Your task to perform on an android device: install app "TextNow: Call + Text Unlimited" Image 0: 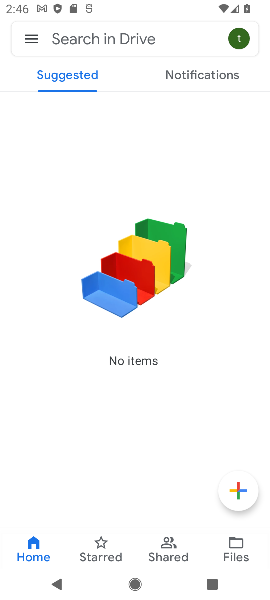
Step 0: press home button
Your task to perform on an android device: install app "TextNow: Call + Text Unlimited" Image 1: 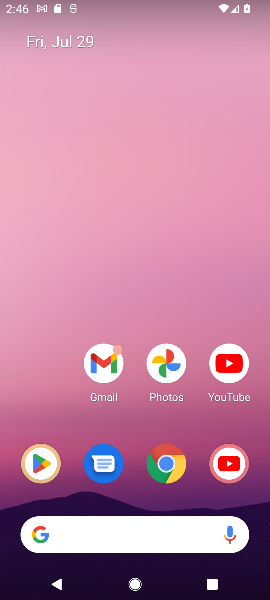
Step 1: drag from (97, 540) to (107, 186)
Your task to perform on an android device: install app "TextNow: Call + Text Unlimited" Image 2: 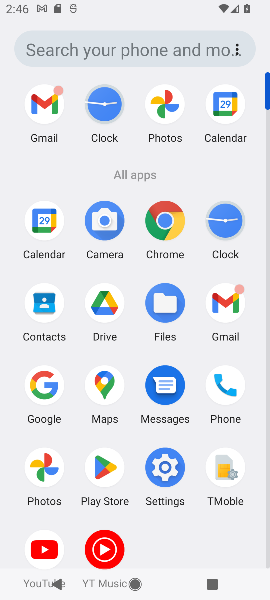
Step 2: click (105, 464)
Your task to perform on an android device: install app "TextNow: Call + Text Unlimited" Image 3: 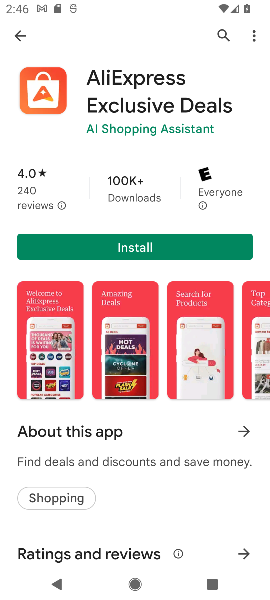
Step 3: click (220, 34)
Your task to perform on an android device: install app "TextNow: Call + Text Unlimited" Image 4: 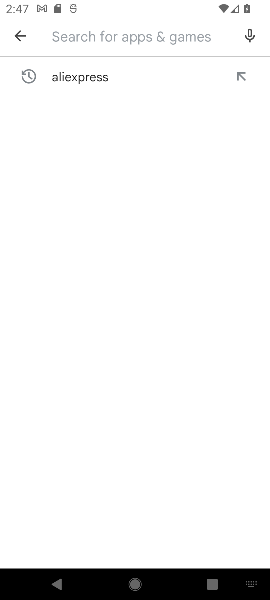
Step 4: type "TextNow: Call + Text Unlimited"
Your task to perform on an android device: install app "TextNow: Call + Text Unlimited" Image 5: 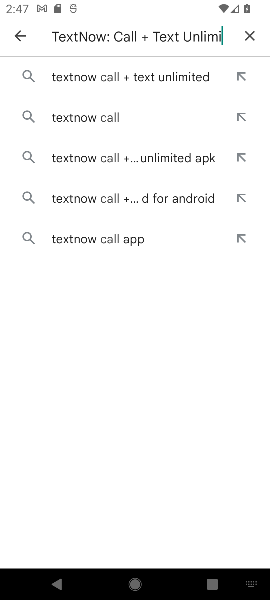
Step 5: type ""
Your task to perform on an android device: install app "TextNow: Call + Text Unlimited" Image 6: 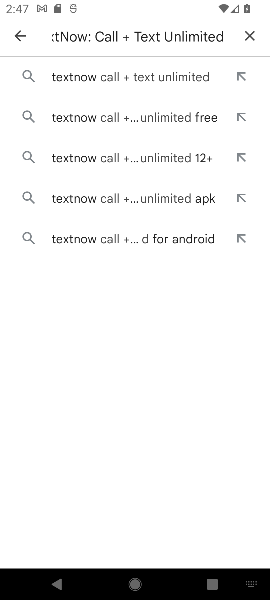
Step 6: click (161, 76)
Your task to perform on an android device: install app "TextNow: Call + Text Unlimited" Image 7: 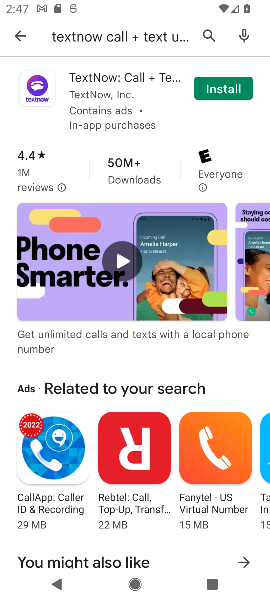
Step 7: click (230, 84)
Your task to perform on an android device: install app "TextNow: Call + Text Unlimited" Image 8: 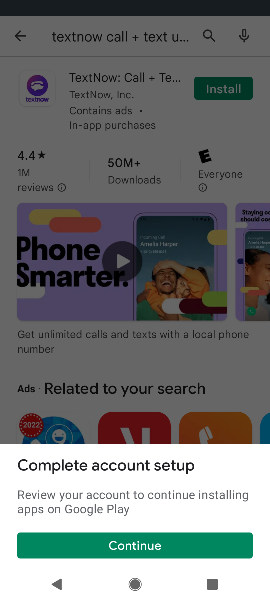
Step 8: click (136, 552)
Your task to perform on an android device: install app "TextNow: Call + Text Unlimited" Image 9: 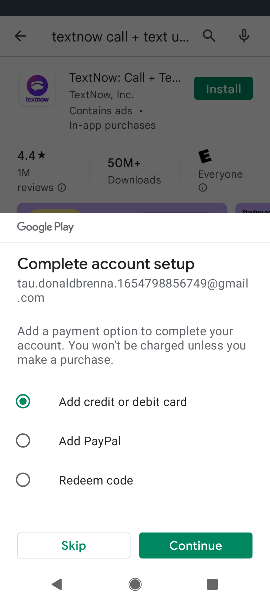
Step 9: click (82, 544)
Your task to perform on an android device: install app "TextNow: Call + Text Unlimited" Image 10: 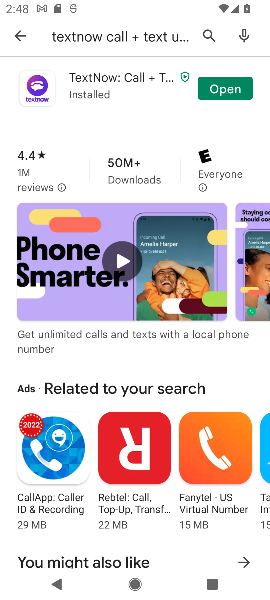
Step 10: task complete